Your task to perform on an android device: choose inbox layout in the gmail app Image 0: 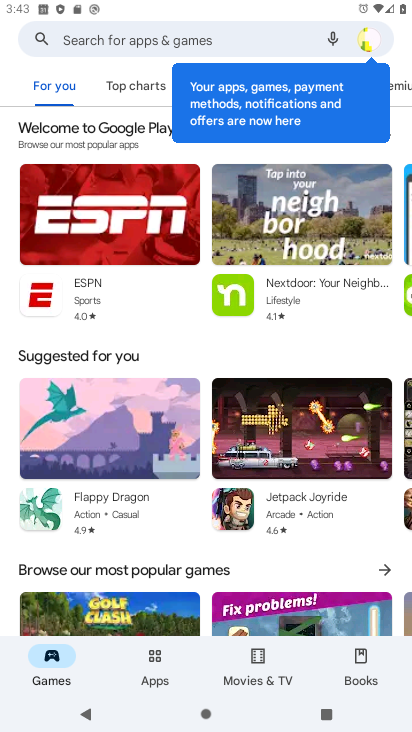
Step 0: press home button
Your task to perform on an android device: choose inbox layout in the gmail app Image 1: 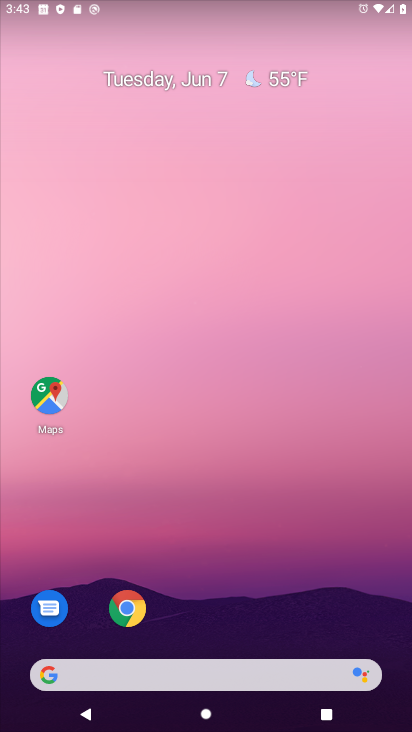
Step 1: drag from (205, 665) to (147, 19)
Your task to perform on an android device: choose inbox layout in the gmail app Image 2: 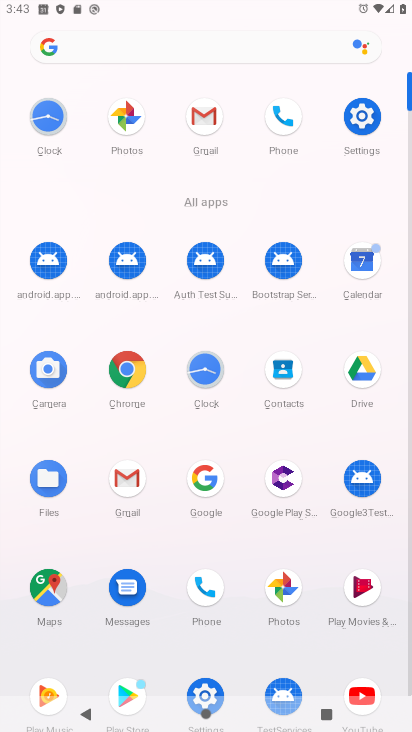
Step 2: click (118, 465)
Your task to perform on an android device: choose inbox layout in the gmail app Image 3: 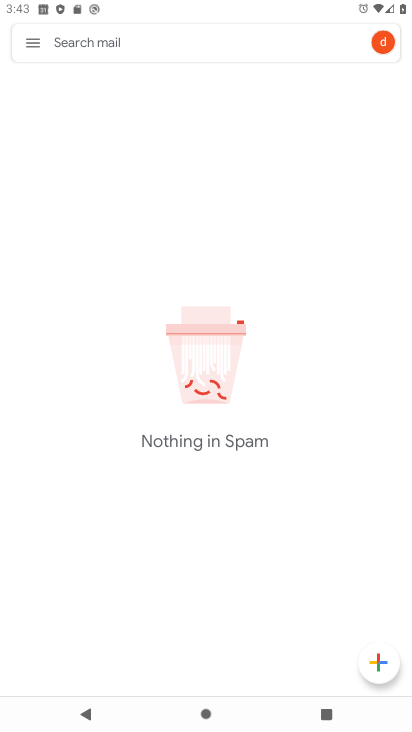
Step 3: click (14, 29)
Your task to perform on an android device: choose inbox layout in the gmail app Image 4: 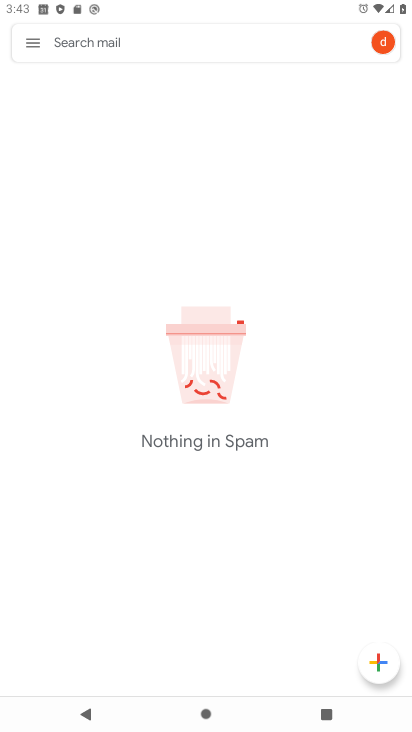
Step 4: click (29, 36)
Your task to perform on an android device: choose inbox layout in the gmail app Image 5: 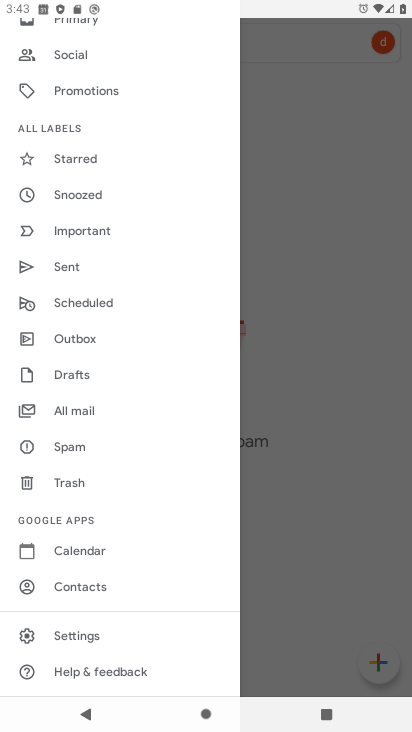
Step 5: click (58, 635)
Your task to perform on an android device: choose inbox layout in the gmail app Image 6: 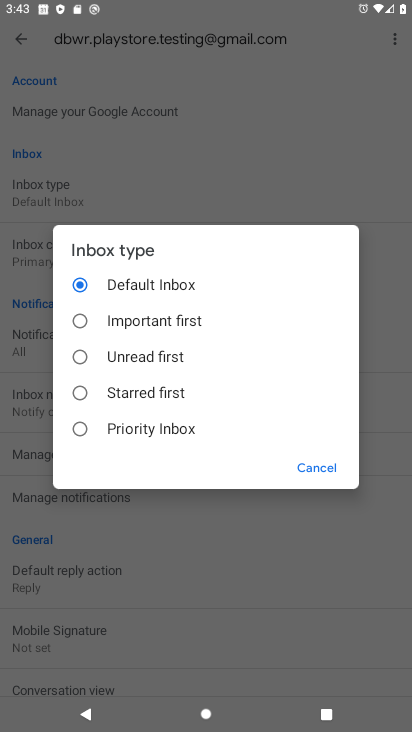
Step 6: click (130, 435)
Your task to perform on an android device: choose inbox layout in the gmail app Image 7: 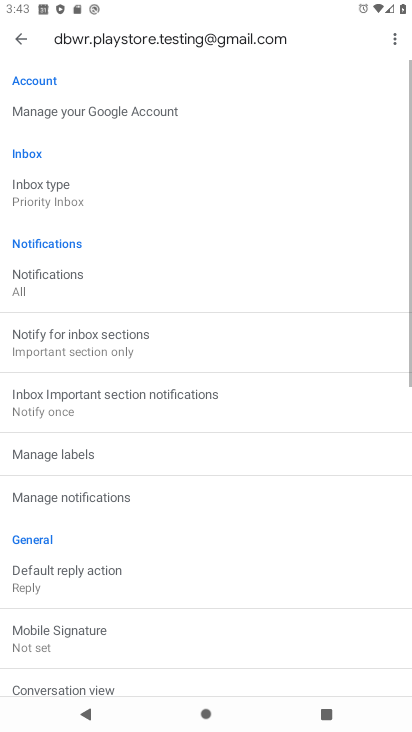
Step 7: click (24, 31)
Your task to perform on an android device: choose inbox layout in the gmail app Image 8: 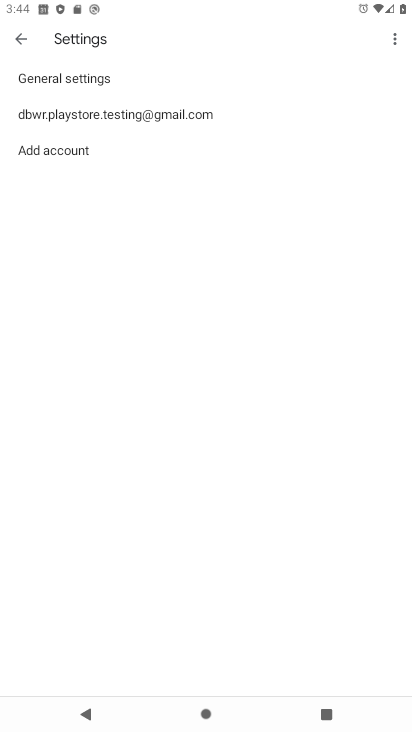
Step 8: click (31, 39)
Your task to perform on an android device: choose inbox layout in the gmail app Image 9: 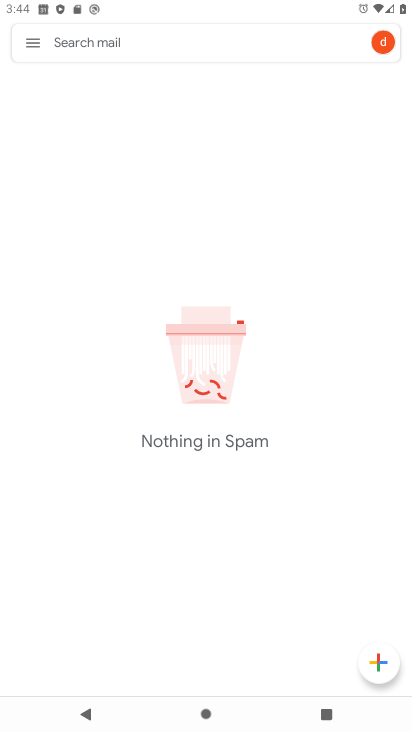
Step 9: click (39, 43)
Your task to perform on an android device: choose inbox layout in the gmail app Image 10: 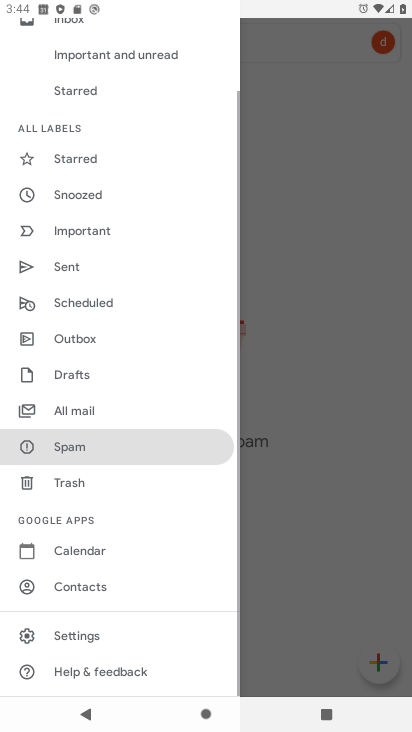
Step 10: drag from (65, 91) to (55, 308)
Your task to perform on an android device: choose inbox layout in the gmail app Image 11: 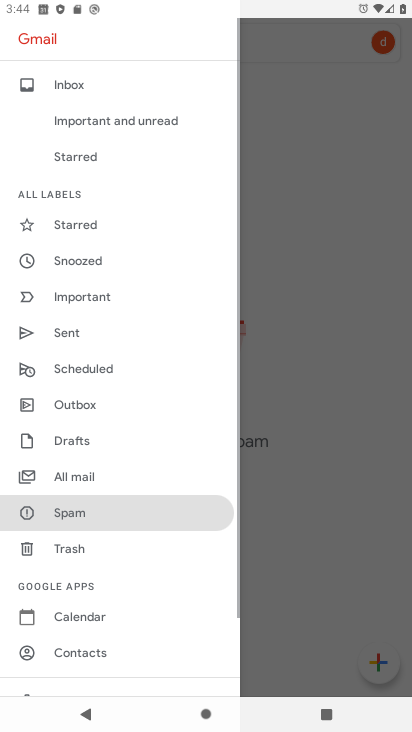
Step 11: click (58, 82)
Your task to perform on an android device: choose inbox layout in the gmail app Image 12: 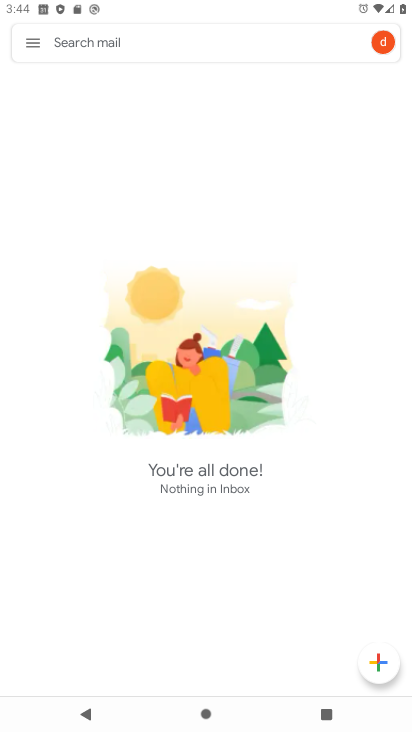
Step 12: task complete